Your task to perform on an android device: Go to Yahoo.com Image 0: 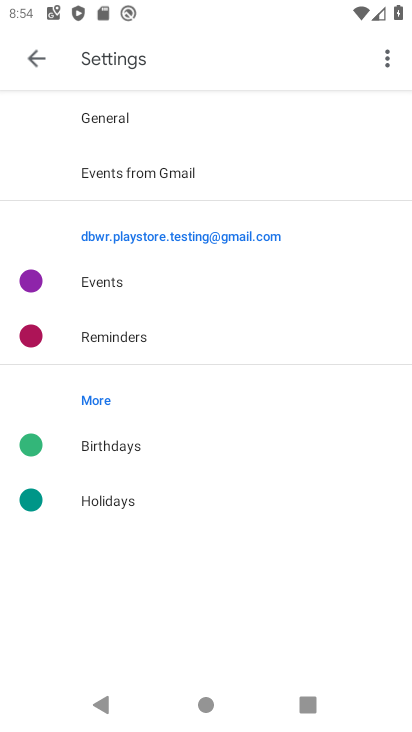
Step 0: press home button
Your task to perform on an android device: Go to Yahoo.com Image 1: 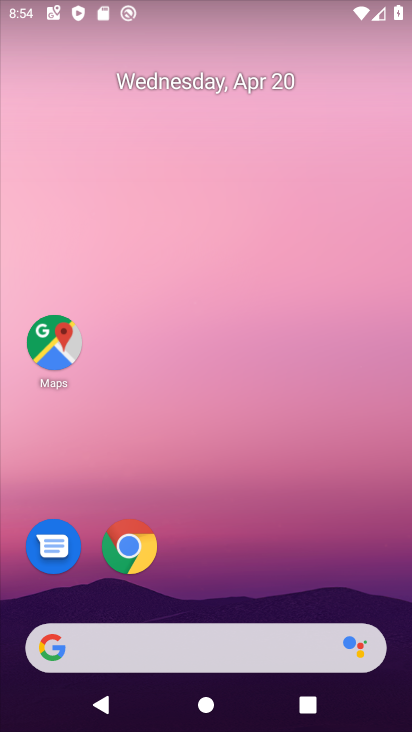
Step 1: click (127, 546)
Your task to perform on an android device: Go to Yahoo.com Image 2: 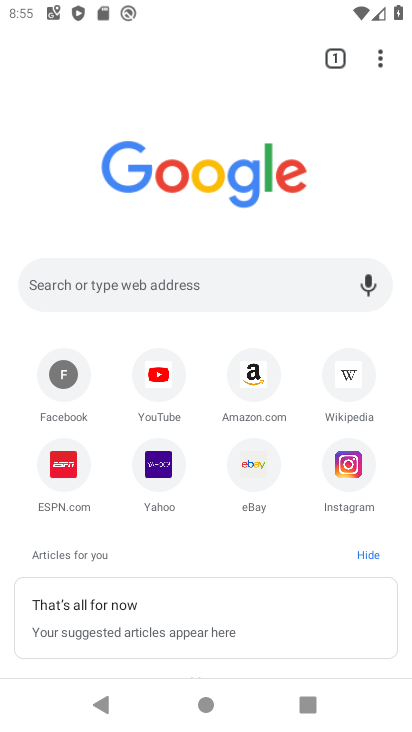
Step 2: click (196, 285)
Your task to perform on an android device: Go to Yahoo.com Image 3: 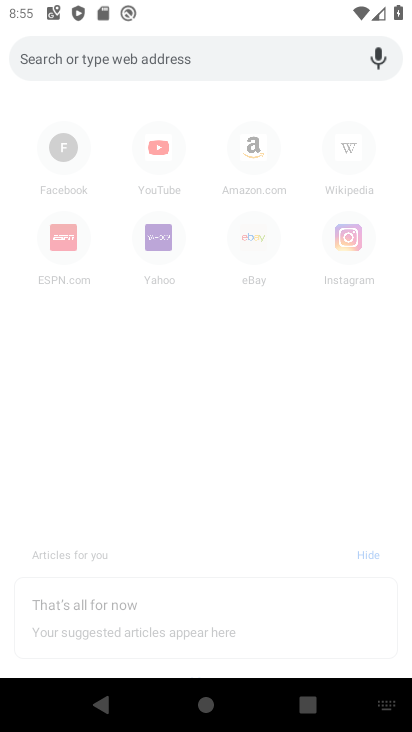
Step 3: type "Yahoo.com"
Your task to perform on an android device: Go to Yahoo.com Image 4: 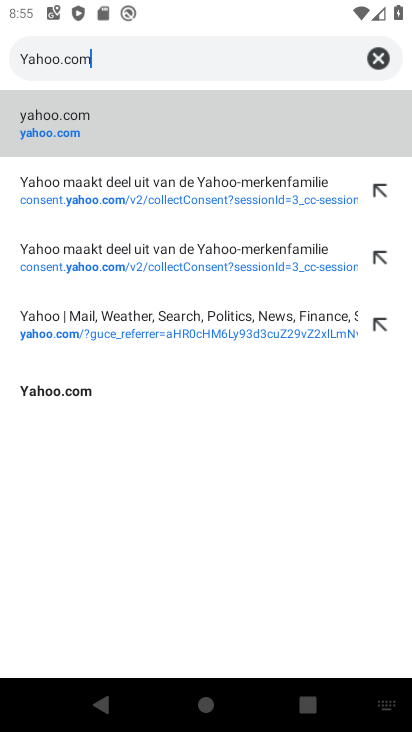
Step 4: click (64, 120)
Your task to perform on an android device: Go to Yahoo.com Image 5: 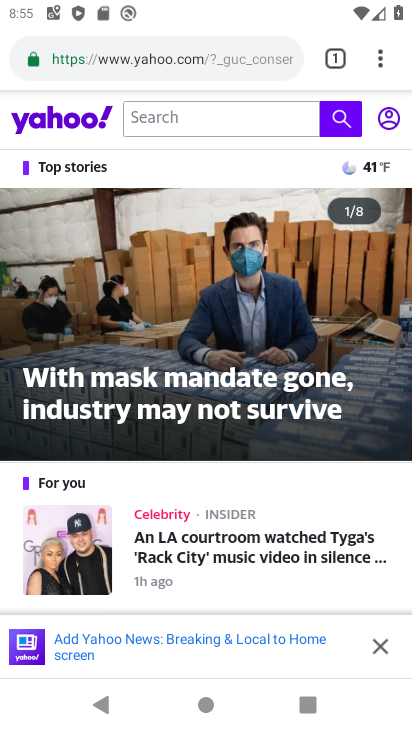
Step 5: task complete